Your task to perform on an android device: Search for Mexican restaurants on Maps Image 0: 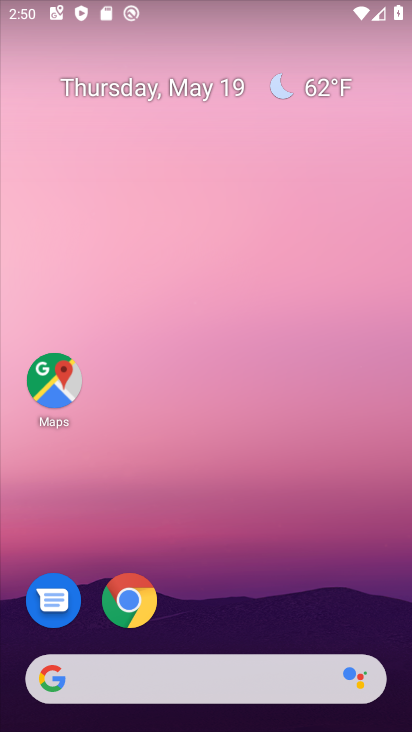
Step 0: click (35, 365)
Your task to perform on an android device: Search for Mexican restaurants on Maps Image 1: 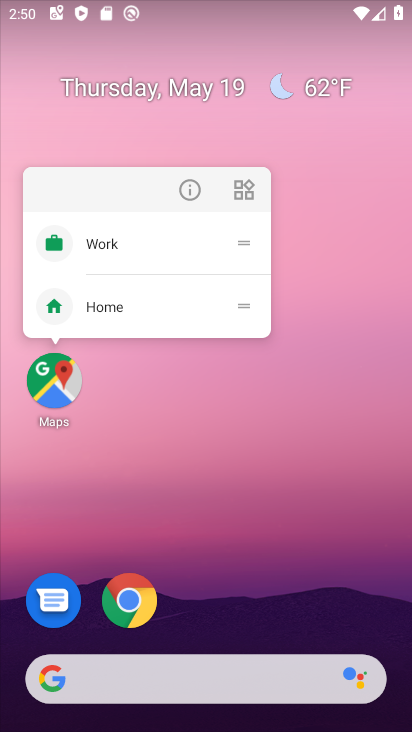
Step 1: click (240, 413)
Your task to perform on an android device: Search for Mexican restaurants on Maps Image 2: 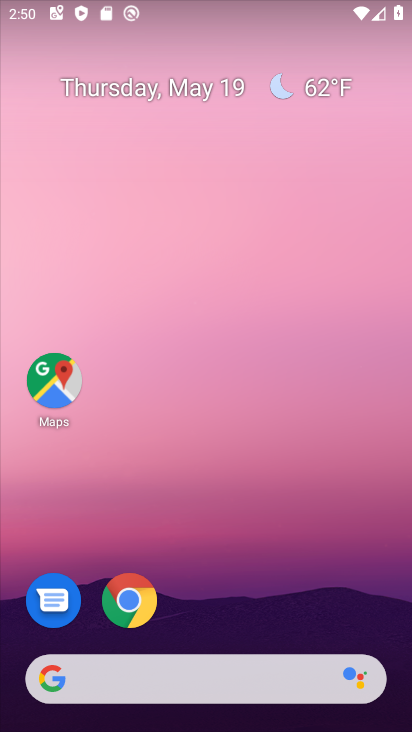
Step 2: click (62, 388)
Your task to perform on an android device: Search for Mexican restaurants on Maps Image 3: 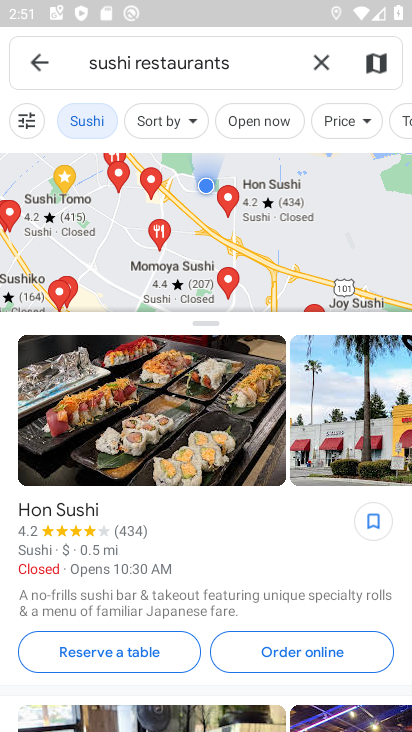
Step 3: click (322, 63)
Your task to perform on an android device: Search for Mexican restaurants on Maps Image 4: 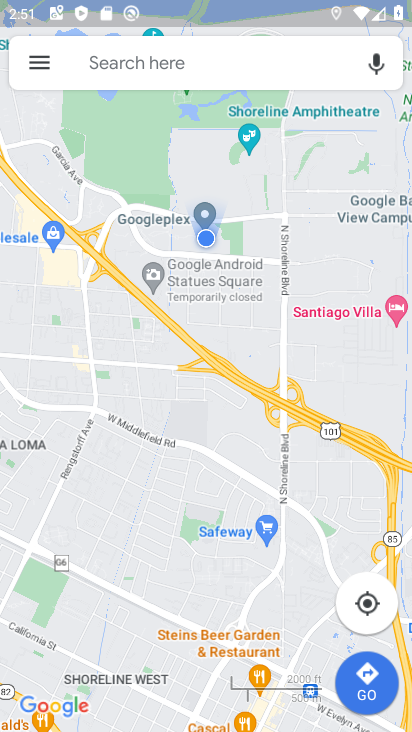
Step 4: click (173, 46)
Your task to perform on an android device: Search for Mexican restaurants on Maps Image 5: 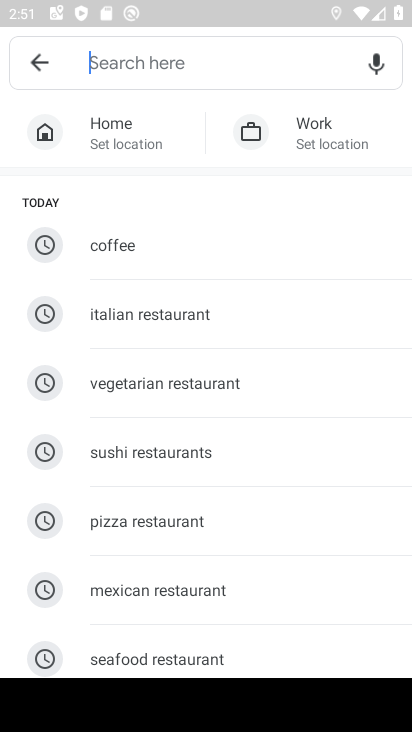
Step 5: click (145, 593)
Your task to perform on an android device: Search for Mexican restaurants on Maps Image 6: 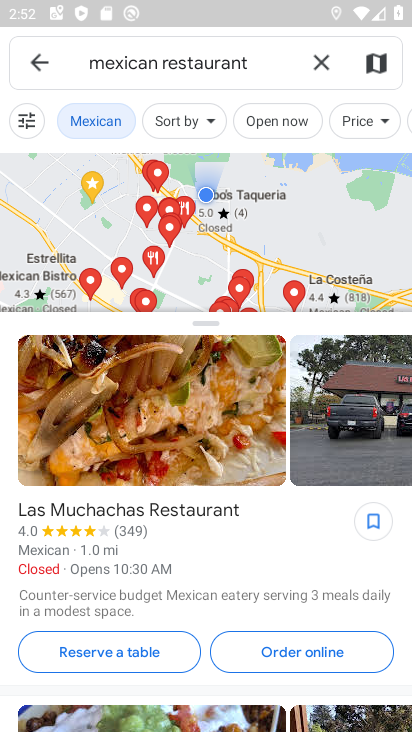
Step 6: task complete